Your task to perform on an android device: open chrome and create a bookmark for the current page Image 0: 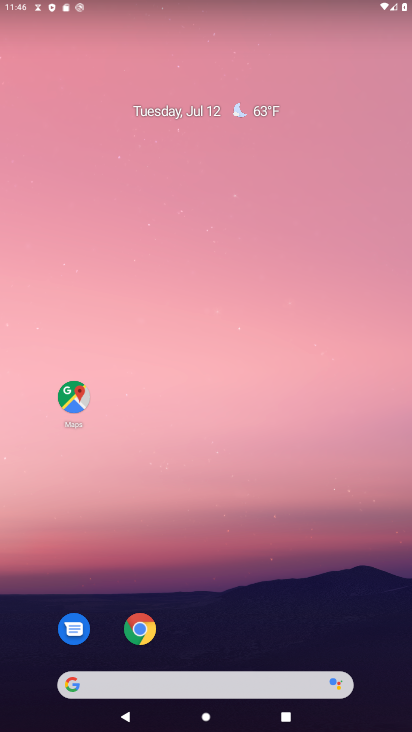
Step 0: drag from (303, 559) to (239, 52)
Your task to perform on an android device: open chrome and create a bookmark for the current page Image 1: 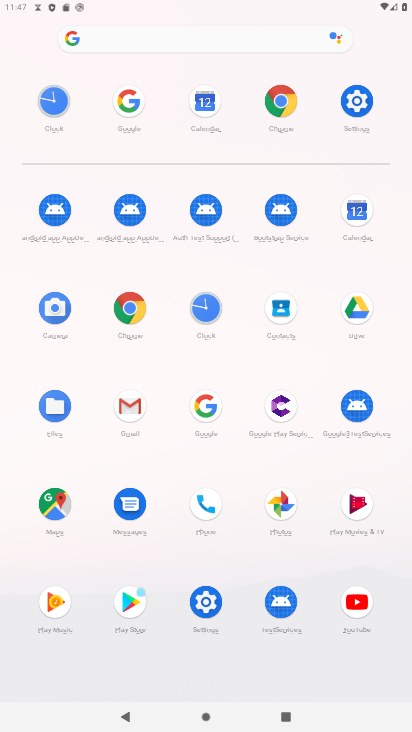
Step 1: click (275, 106)
Your task to perform on an android device: open chrome and create a bookmark for the current page Image 2: 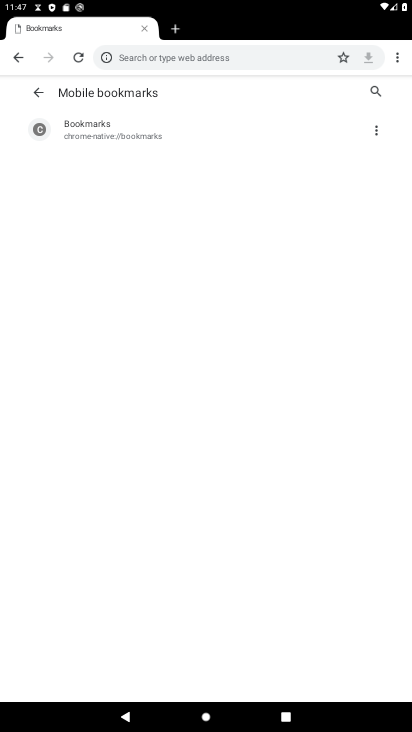
Step 2: click (404, 58)
Your task to perform on an android device: open chrome and create a bookmark for the current page Image 3: 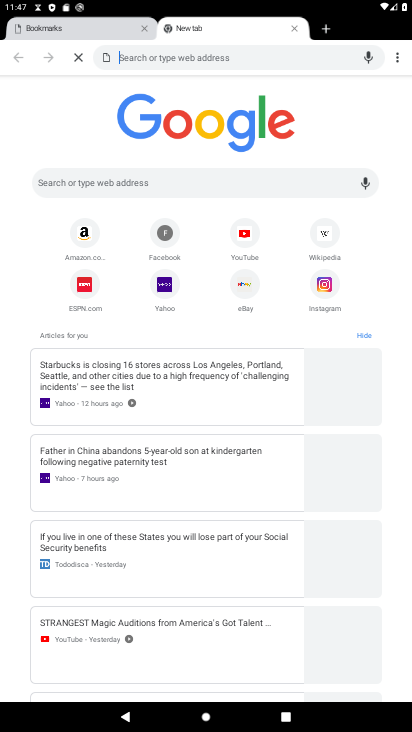
Step 3: click (404, 58)
Your task to perform on an android device: open chrome and create a bookmark for the current page Image 4: 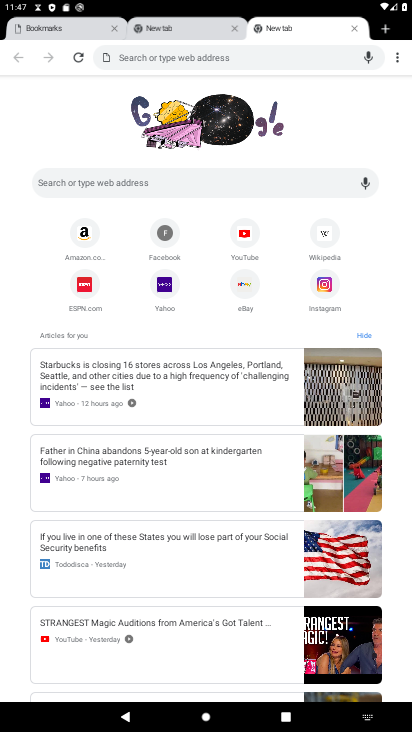
Step 4: press home button
Your task to perform on an android device: open chrome and create a bookmark for the current page Image 5: 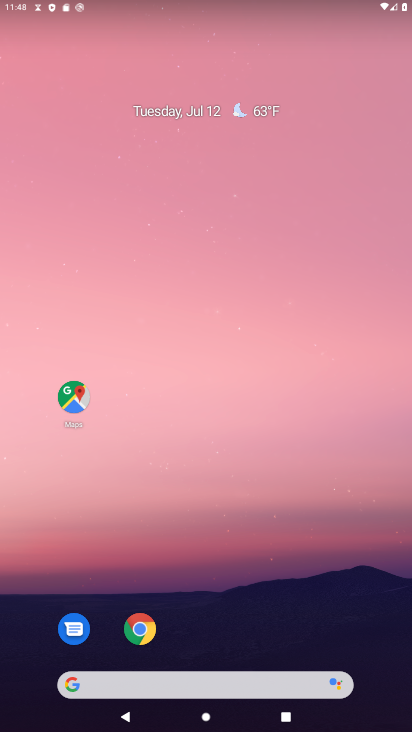
Step 5: drag from (209, 598) to (120, 173)
Your task to perform on an android device: open chrome and create a bookmark for the current page Image 6: 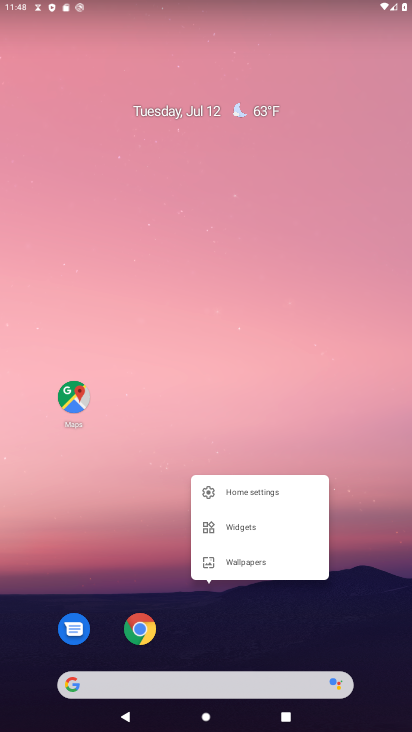
Step 6: drag from (49, 532) to (61, 168)
Your task to perform on an android device: open chrome and create a bookmark for the current page Image 7: 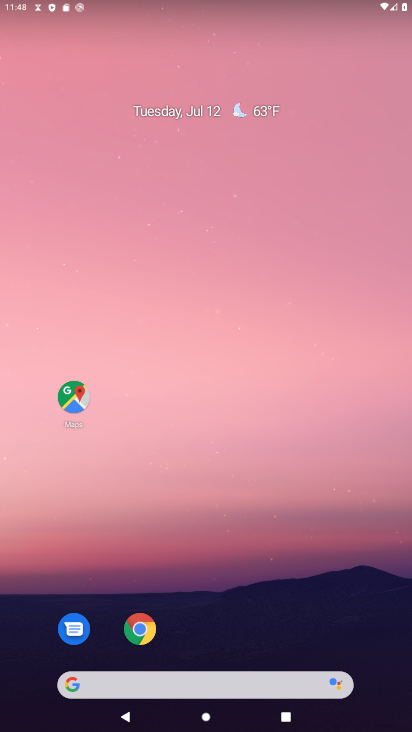
Step 7: drag from (88, 525) to (20, 653)
Your task to perform on an android device: open chrome and create a bookmark for the current page Image 8: 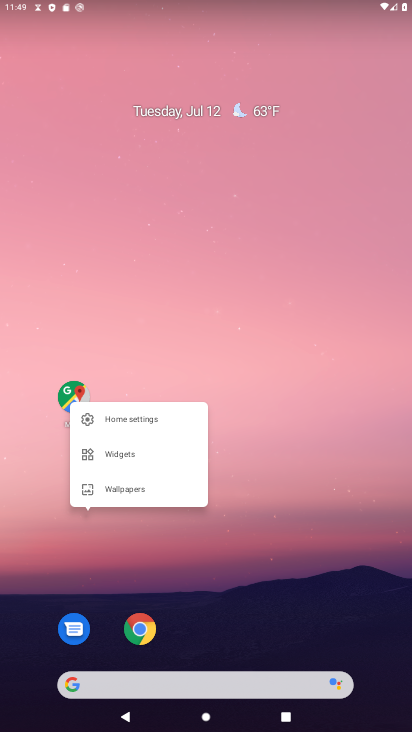
Step 8: drag from (183, 657) to (83, 261)
Your task to perform on an android device: open chrome and create a bookmark for the current page Image 9: 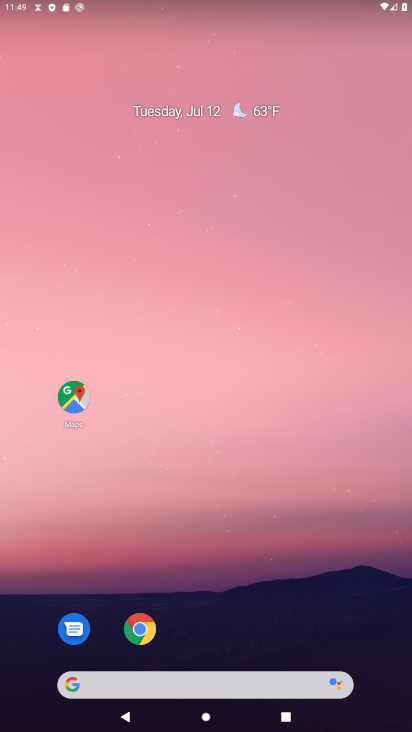
Step 9: drag from (395, 641) to (321, 74)
Your task to perform on an android device: open chrome and create a bookmark for the current page Image 10: 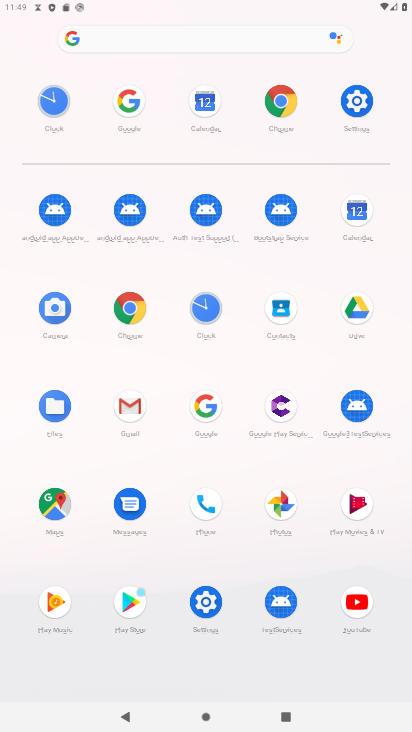
Step 10: click (287, 105)
Your task to perform on an android device: open chrome and create a bookmark for the current page Image 11: 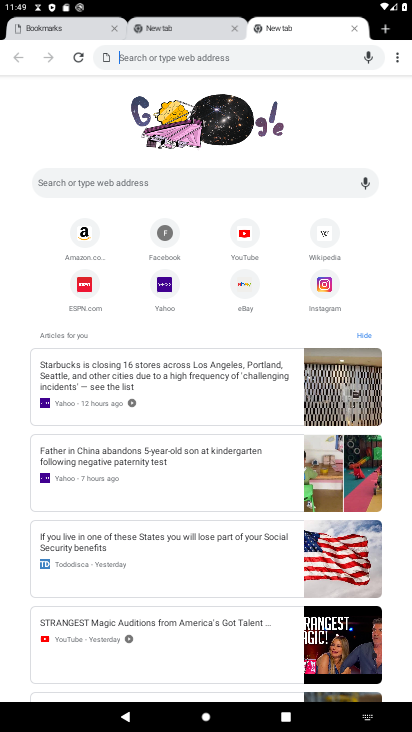
Step 11: drag from (395, 61) to (295, 117)
Your task to perform on an android device: open chrome and create a bookmark for the current page Image 12: 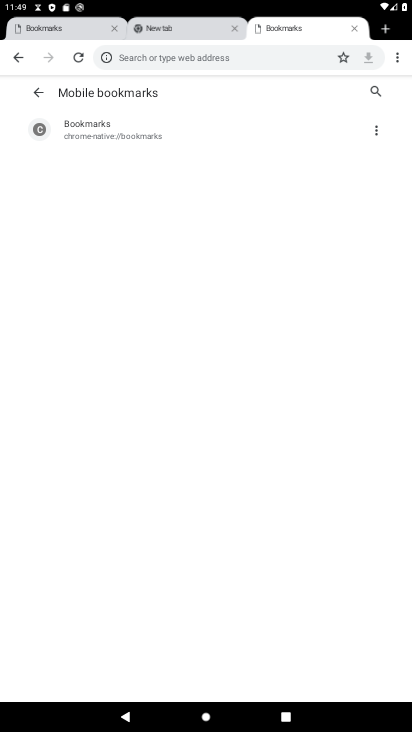
Step 12: click (340, 55)
Your task to perform on an android device: open chrome and create a bookmark for the current page Image 13: 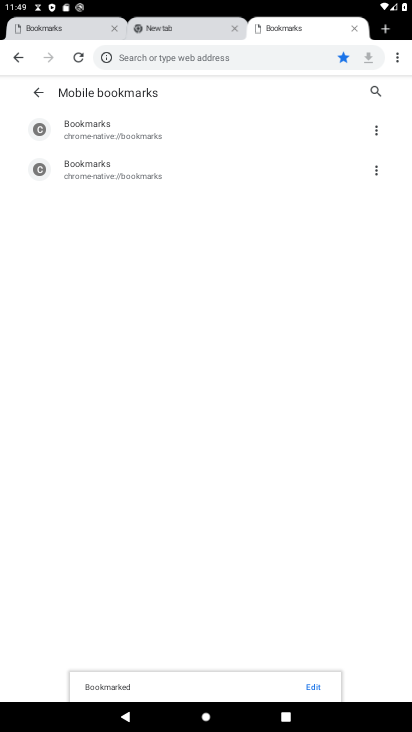
Step 13: task complete